Your task to perform on an android device: snooze an email in the gmail app Image 0: 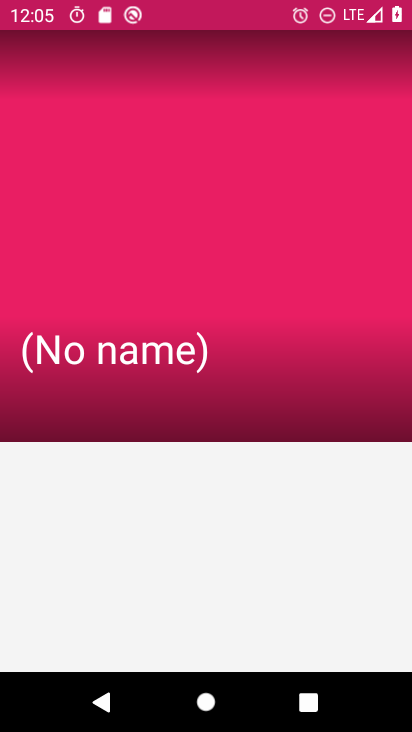
Step 0: drag from (238, 552) to (320, 162)
Your task to perform on an android device: snooze an email in the gmail app Image 1: 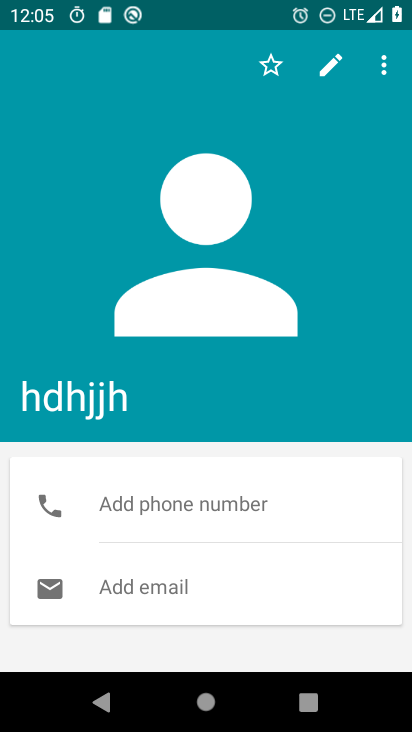
Step 1: press home button
Your task to perform on an android device: snooze an email in the gmail app Image 2: 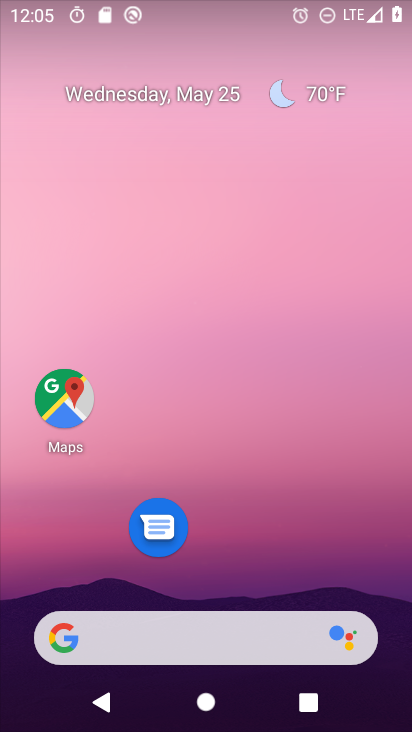
Step 2: drag from (267, 554) to (292, 150)
Your task to perform on an android device: snooze an email in the gmail app Image 3: 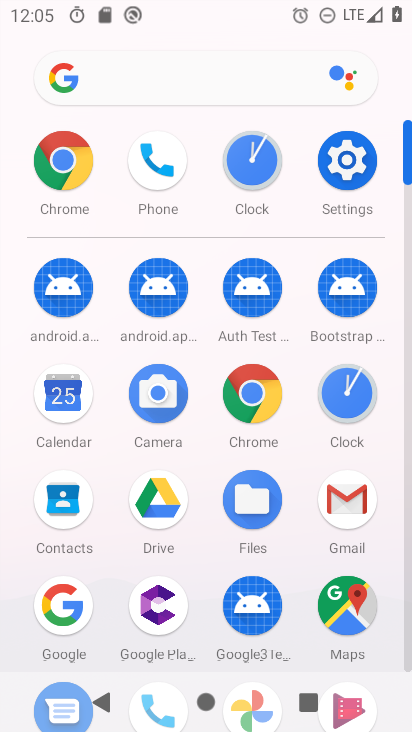
Step 3: drag from (202, 552) to (190, 329)
Your task to perform on an android device: snooze an email in the gmail app Image 4: 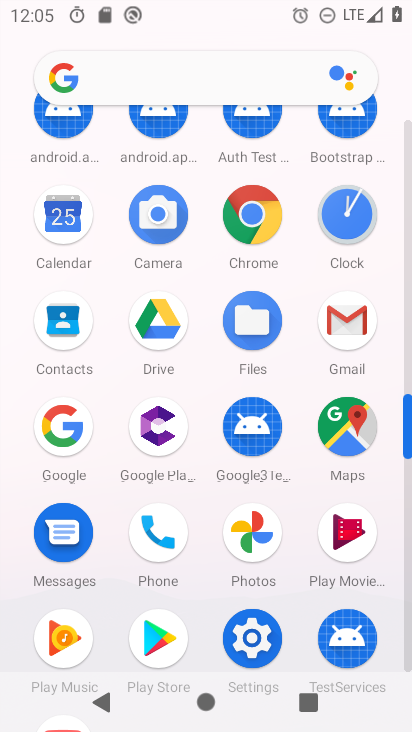
Step 4: drag from (283, 364) to (321, 373)
Your task to perform on an android device: snooze an email in the gmail app Image 5: 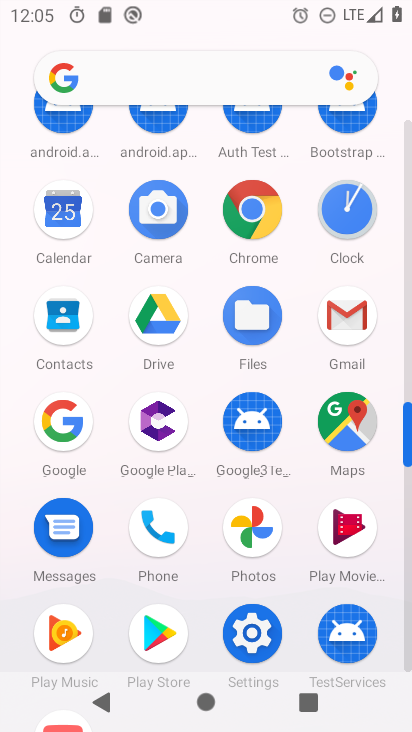
Step 5: click (344, 311)
Your task to perform on an android device: snooze an email in the gmail app Image 6: 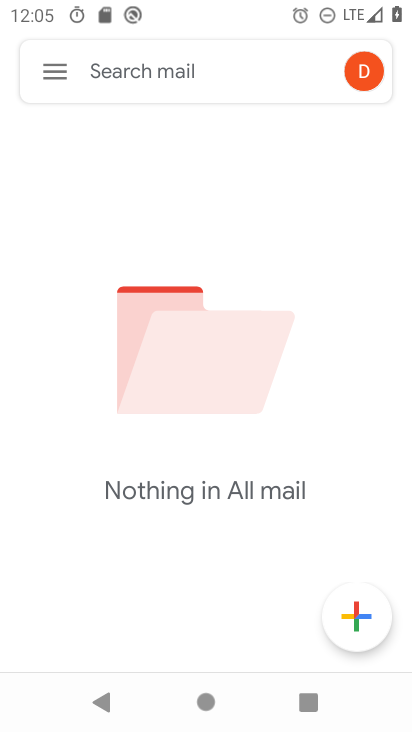
Step 6: task complete